Your task to perform on an android device: show emergency info Image 0: 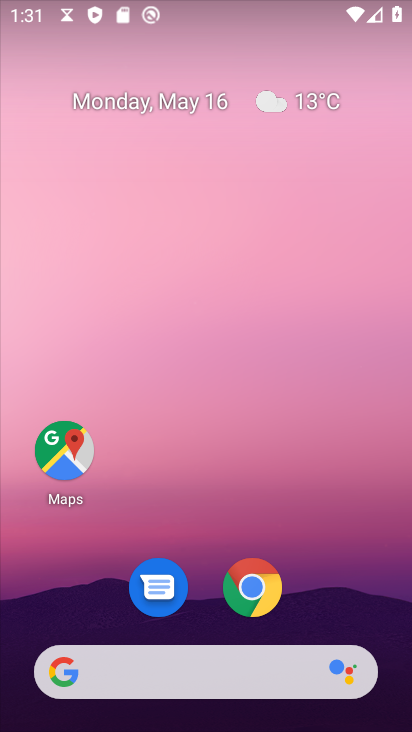
Step 0: drag from (169, 636) to (166, 342)
Your task to perform on an android device: show emergency info Image 1: 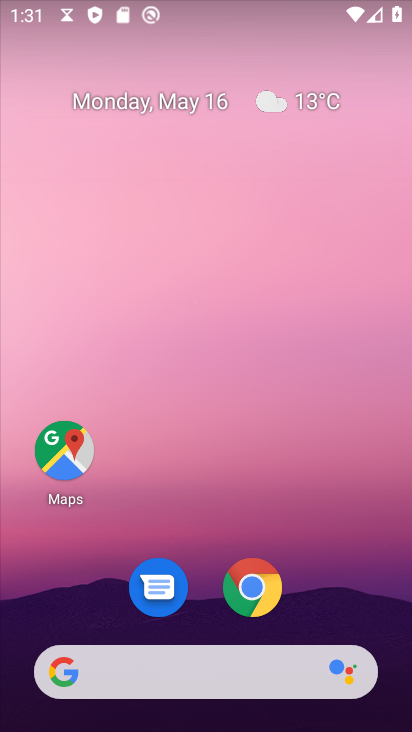
Step 1: drag from (200, 664) to (185, 227)
Your task to perform on an android device: show emergency info Image 2: 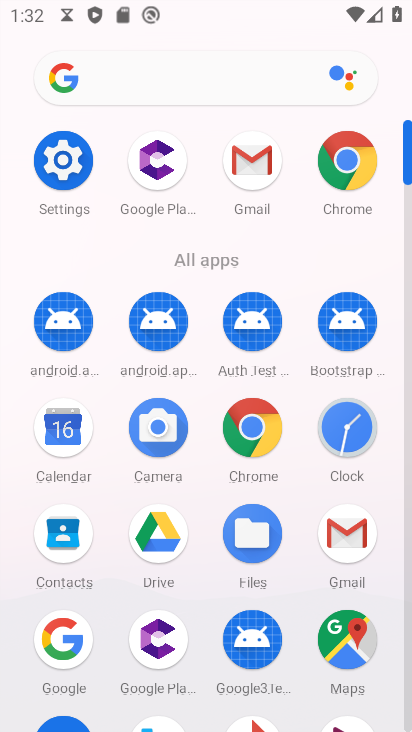
Step 2: click (55, 161)
Your task to perform on an android device: show emergency info Image 3: 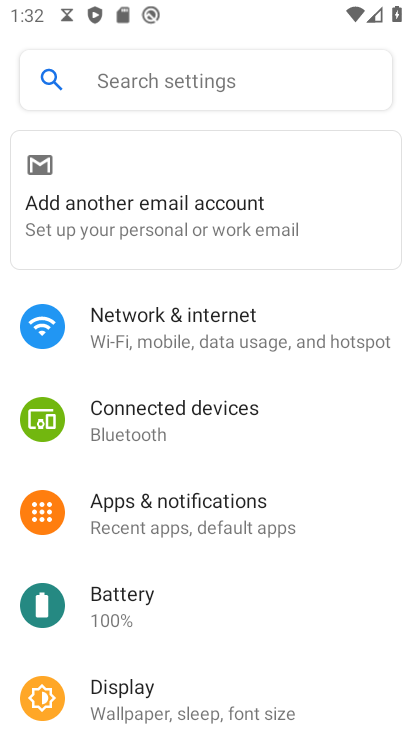
Step 3: drag from (201, 683) to (198, 294)
Your task to perform on an android device: show emergency info Image 4: 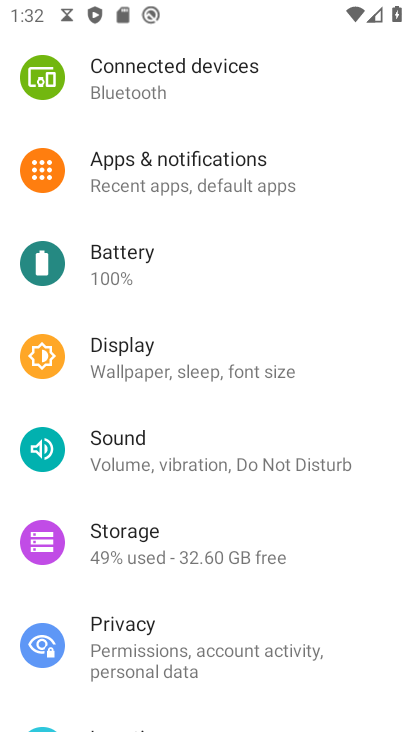
Step 4: drag from (166, 686) to (160, 322)
Your task to perform on an android device: show emergency info Image 5: 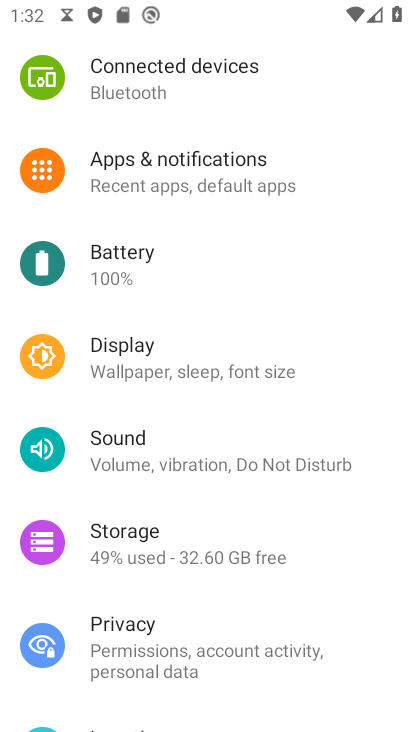
Step 5: drag from (160, 689) to (160, 358)
Your task to perform on an android device: show emergency info Image 6: 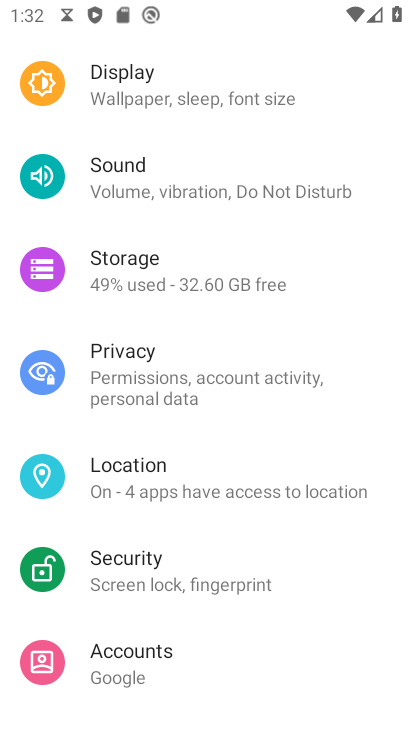
Step 6: drag from (154, 676) to (200, 332)
Your task to perform on an android device: show emergency info Image 7: 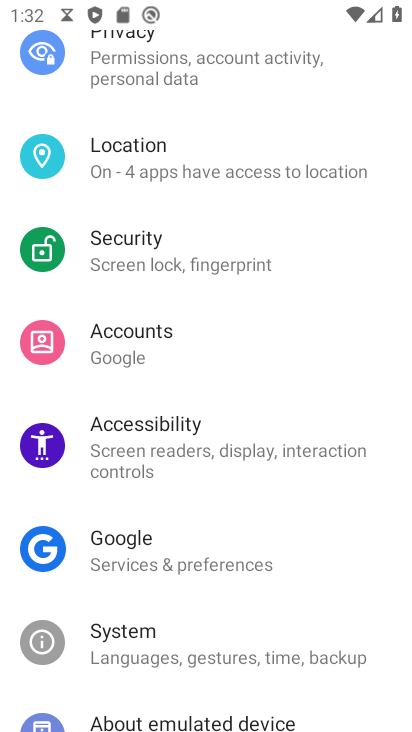
Step 7: drag from (151, 687) to (188, 307)
Your task to perform on an android device: show emergency info Image 8: 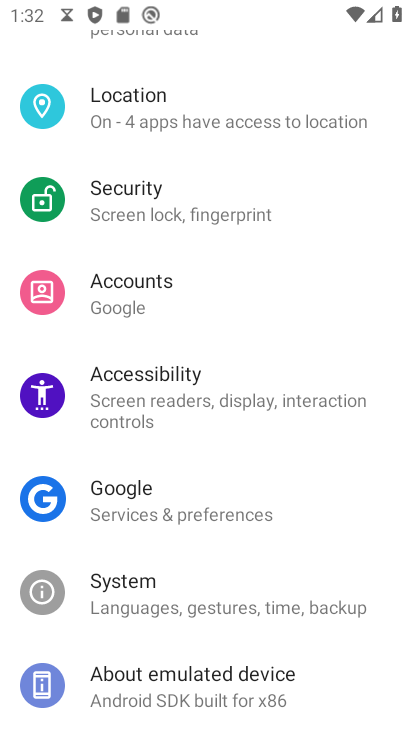
Step 8: drag from (208, 707) to (256, 393)
Your task to perform on an android device: show emergency info Image 9: 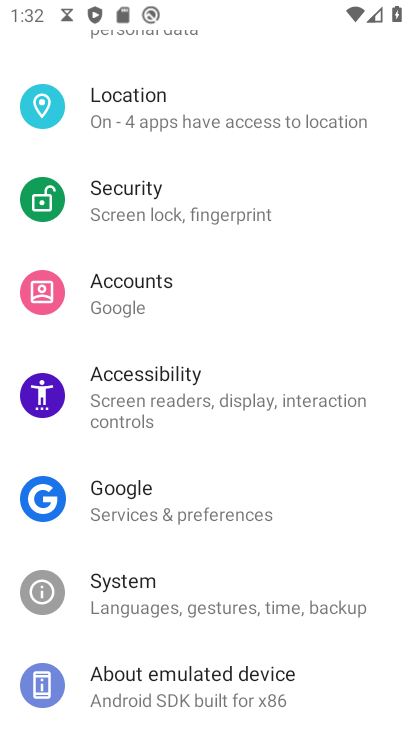
Step 9: click (159, 708)
Your task to perform on an android device: show emergency info Image 10: 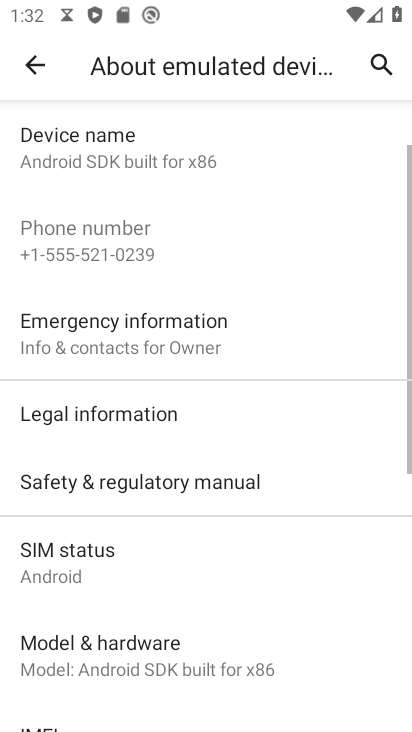
Step 10: click (122, 330)
Your task to perform on an android device: show emergency info Image 11: 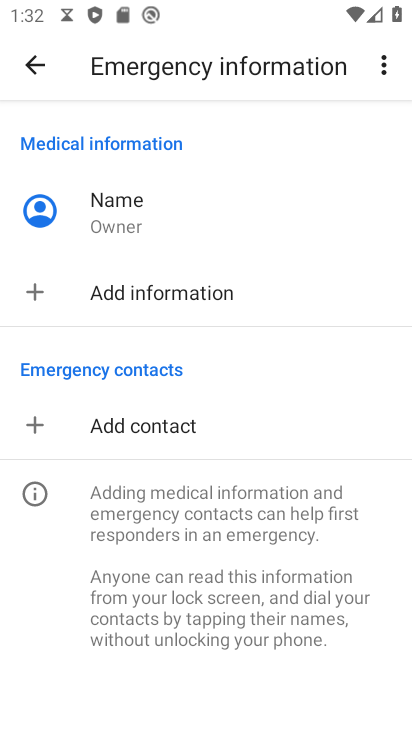
Step 11: task complete